Your task to perform on an android device: uninstall "The Home Depot" Image 0: 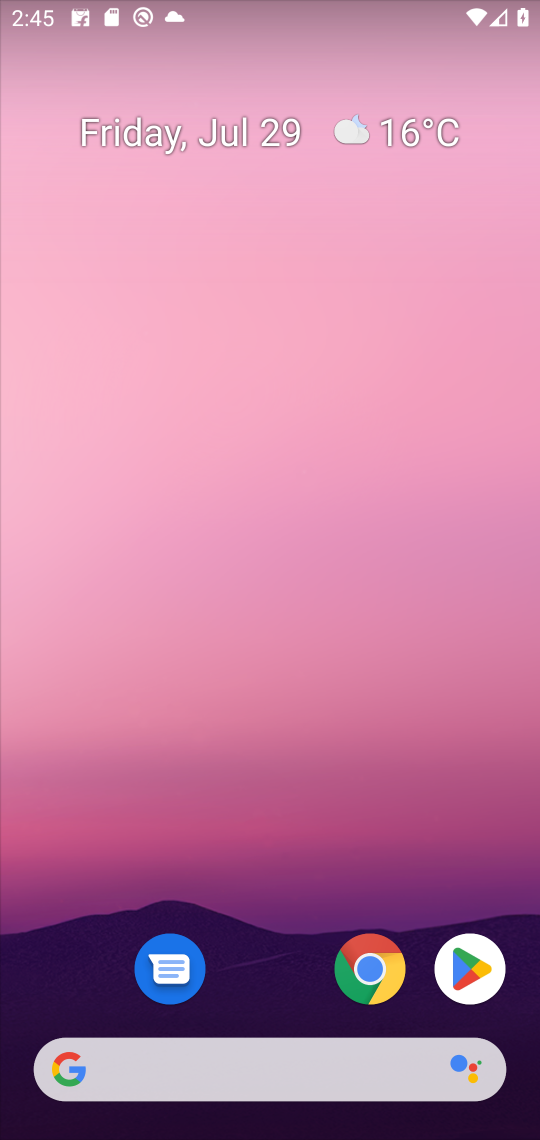
Step 0: click (453, 947)
Your task to perform on an android device: uninstall "The Home Depot" Image 1: 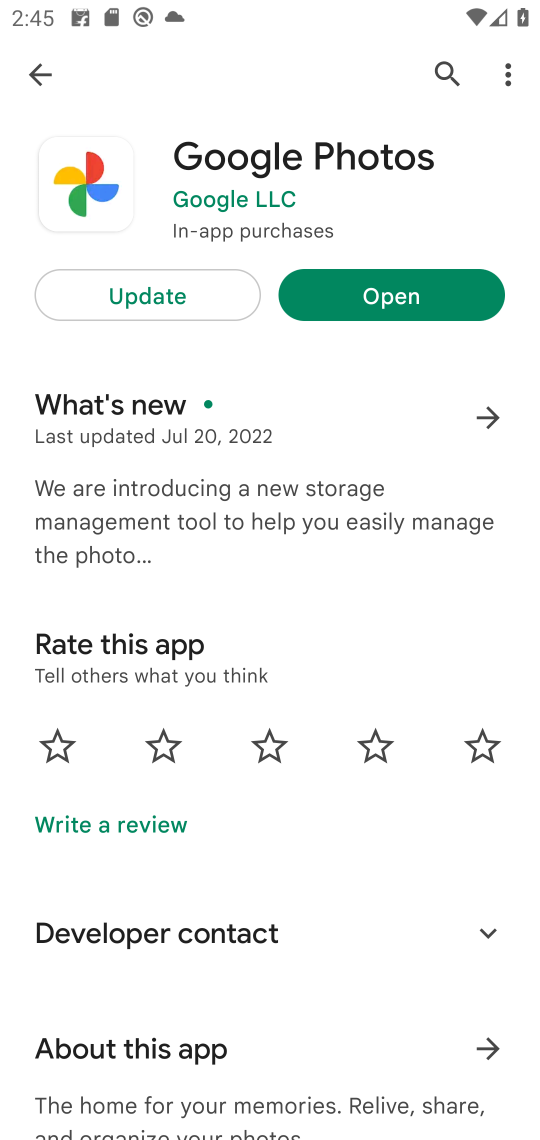
Step 1: click (440, 79)
Your task to perform on an android device: uninstall "The Home Depot" Image 2: 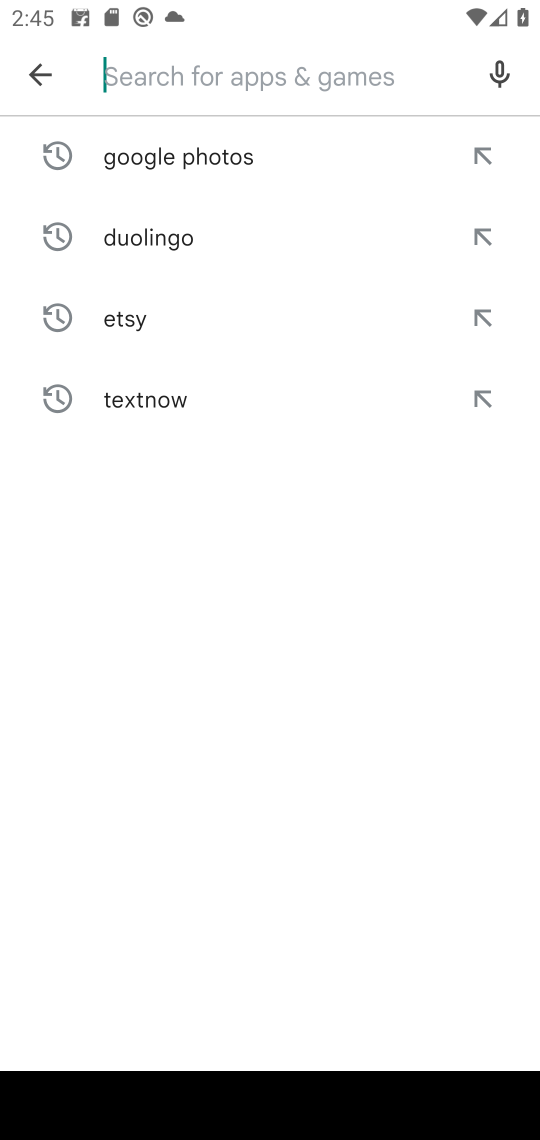
Step 2: type "the home depot"
Your task to perform on an android device: uninstall "The Home Depot" Image 3: 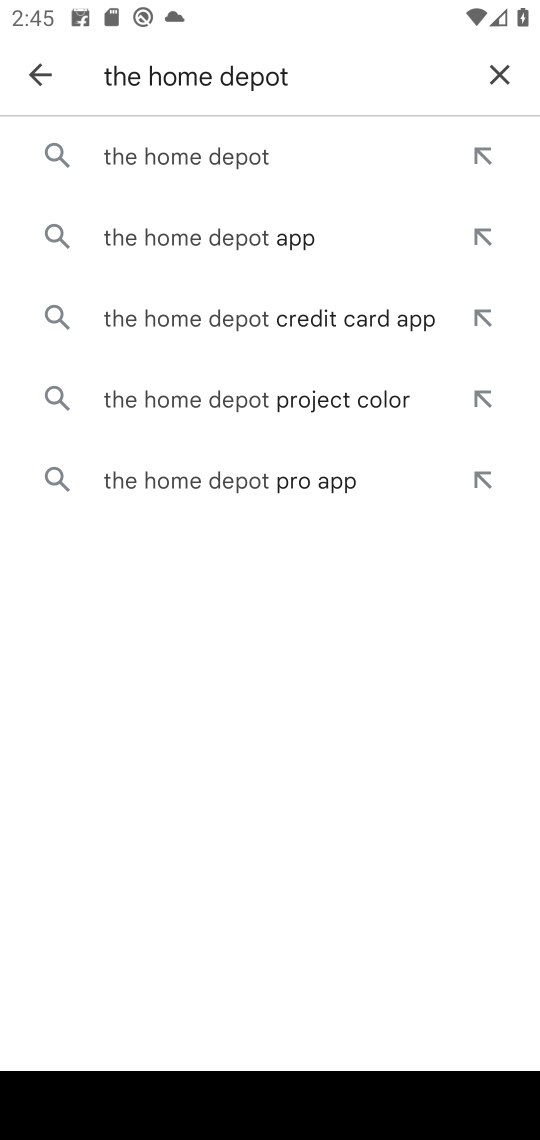
Step 3: click (280, 143)
Your task to perform on an android device: uninstall "The Home Depot" Image 4: 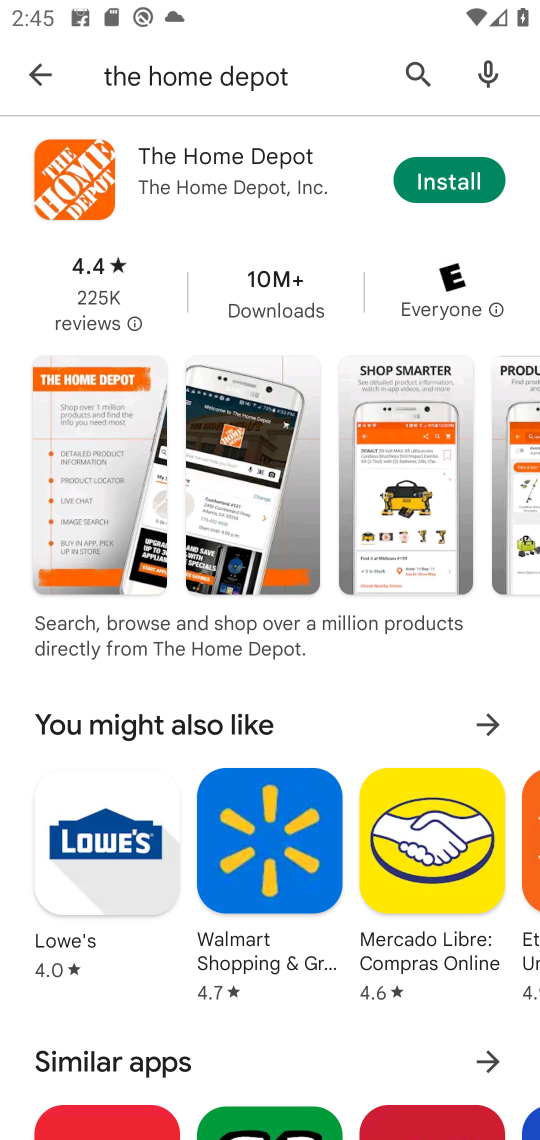
Step 4: click (77, 190)
Your task to perform on an android device: uninstall "The Home Depot" Image 5: 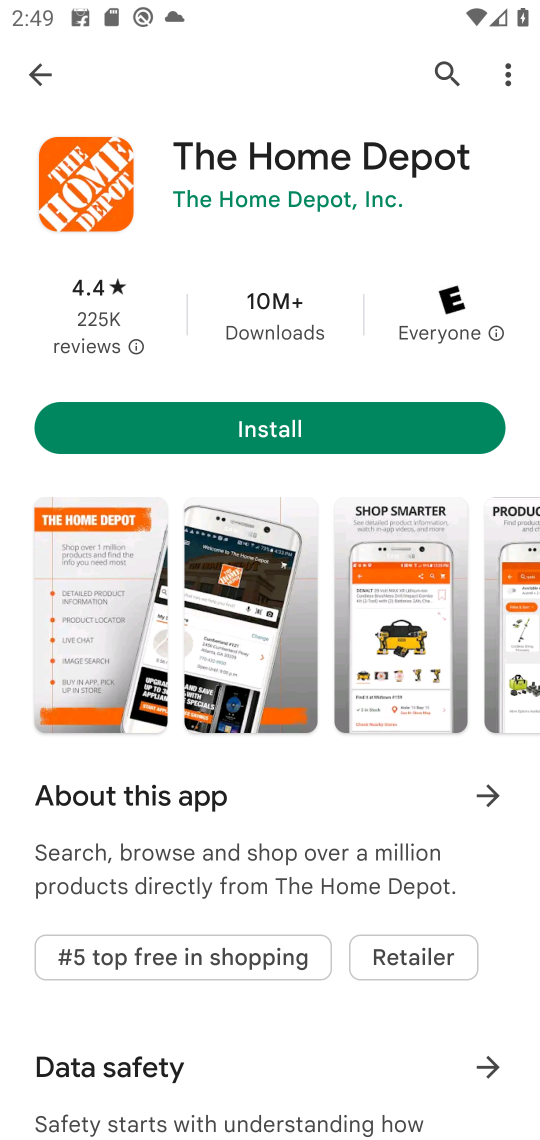
Step 5: task complete